Your task to perform on an android device: Search for custom t-shirts on Etsy. Image 0: 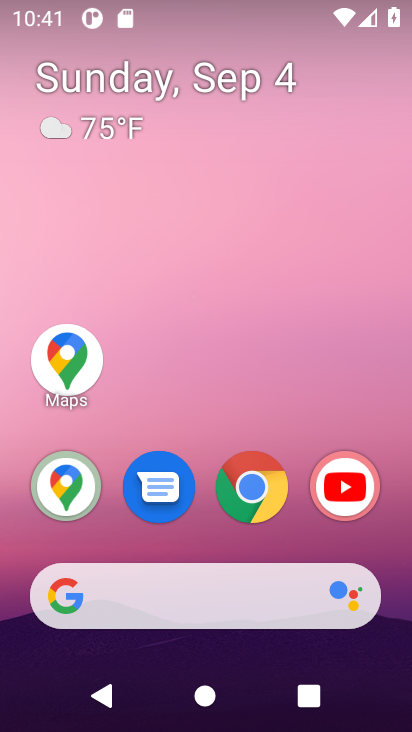
Step 0: click (32, 489)
Your task to perform on an android device: Search for custom t-shirts on Etsy. Image 1: 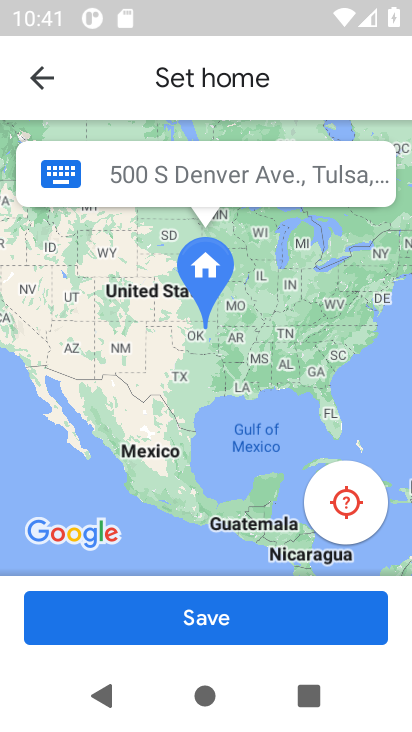
Step 1: task complete